Your task to perform on an android device: Open the calendar and show me this week's events Image 0: 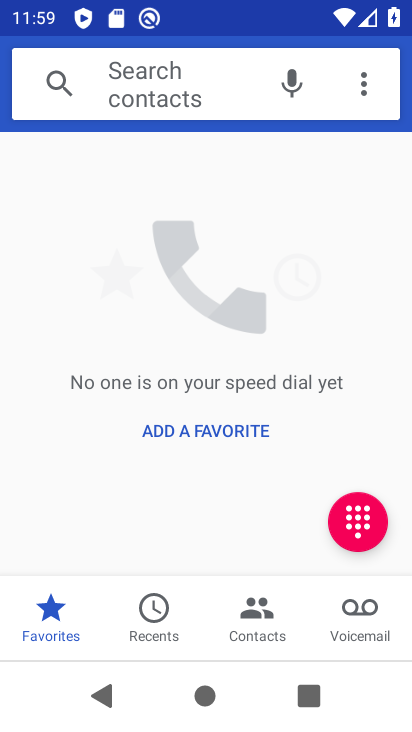
Step 0: press home button
Your task to perform on an android device: Open the calendar and show me this week's events Image 1: 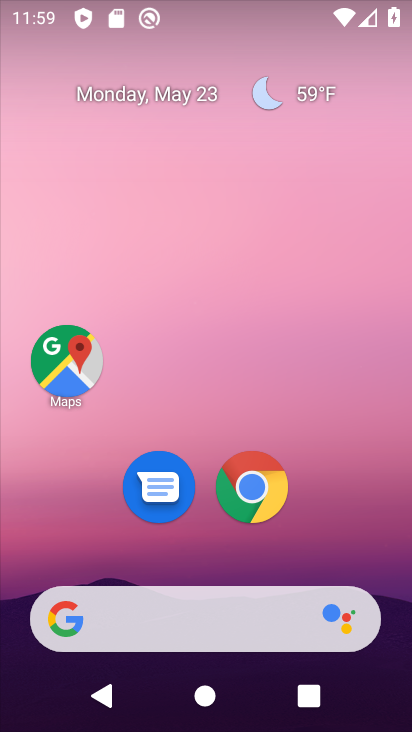
Step 1: drag from (305, 557) to (279, 122)
Your task to perform on an android device: Open the calendar and show me this week's events Image 2: 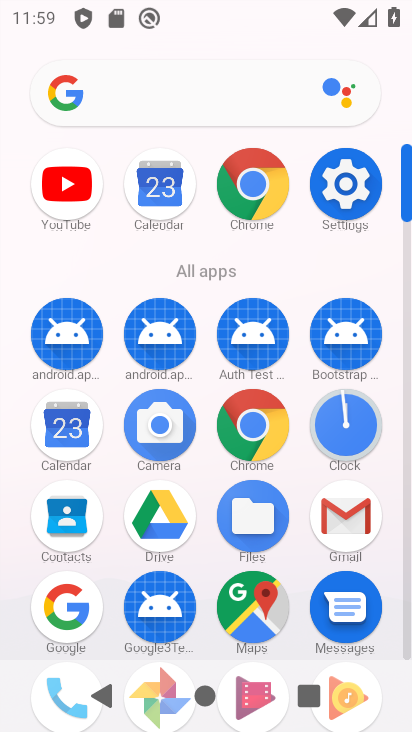
Step 2: click (61, 444)
Your task to perform on an android device: Open the calendar and show me this week's events Image 3: 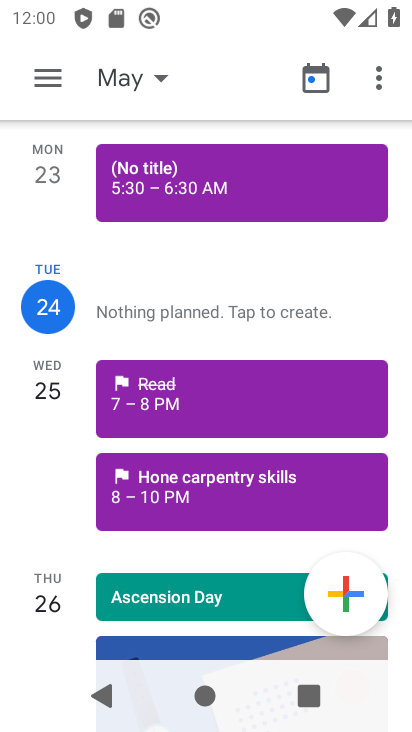
Step 3: click (140, 63)
Your task to perform on an android device: Open the calendar and show me this week's events Image 4: 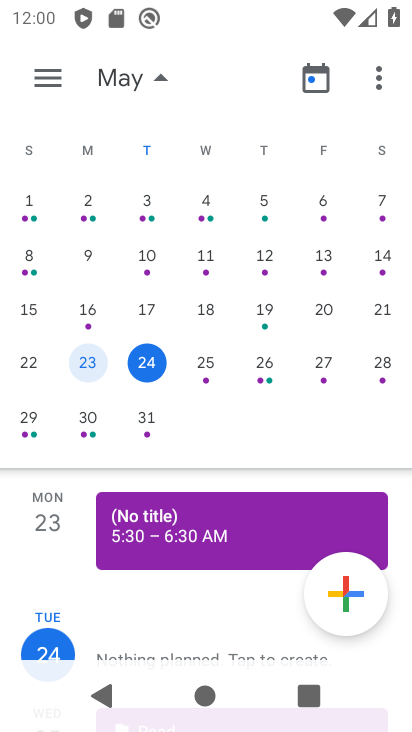
Step 4: click (149, 363)
Your task to perform on an android device: Open the calendar and show me this week's events Image 5: 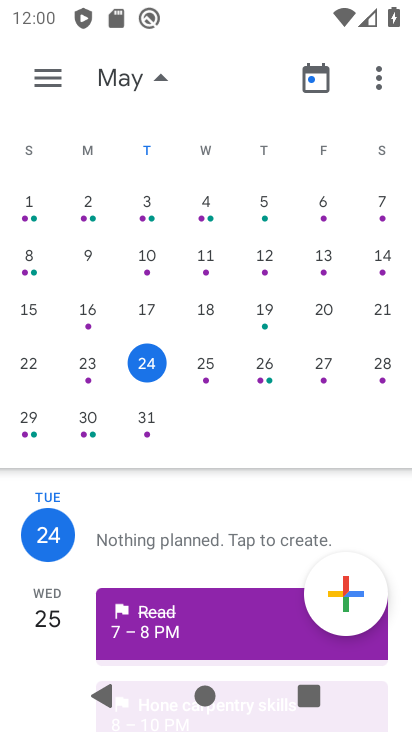
Step 5: click (94, 368)
Your task to perform on an android device: Open the calendar and show me this week's events Image 6: 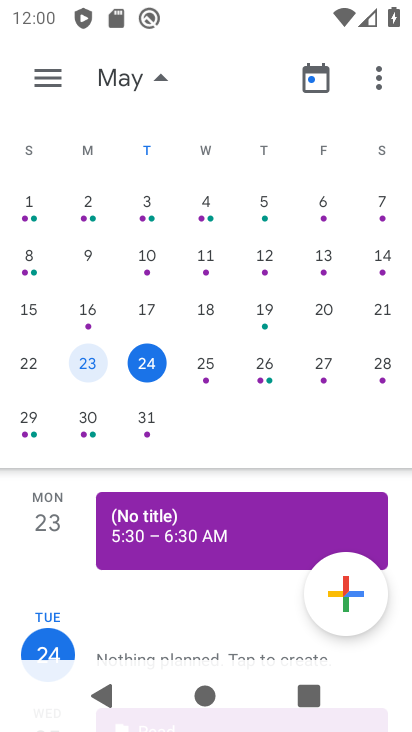
Step 6: task complete